Your task to perform on an android device: toggle sleep mode Image 0: 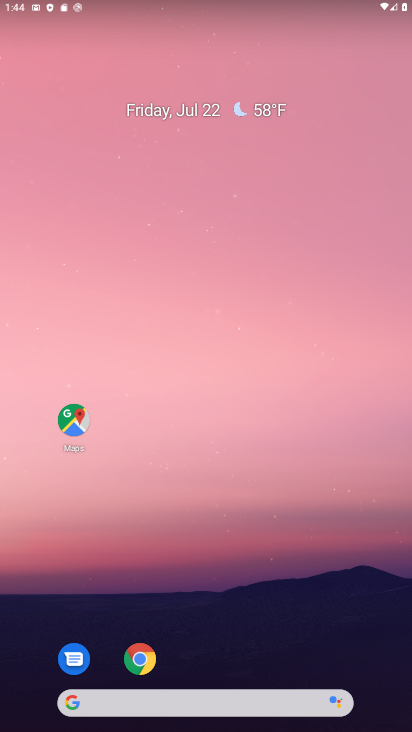
Step 0: drag from (215, 670) to (230, 3)
Your task to perform on an android device: toggle sleep mode Image 1: 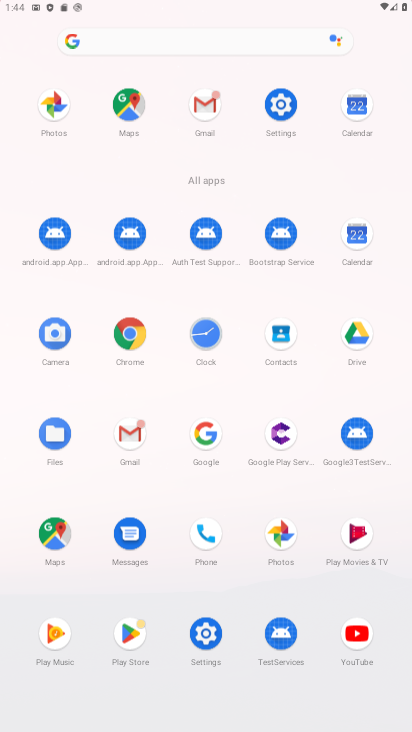
Step 1: click (286, 111)
Your task to perform on an android device: toggle sleep mode Image 2: 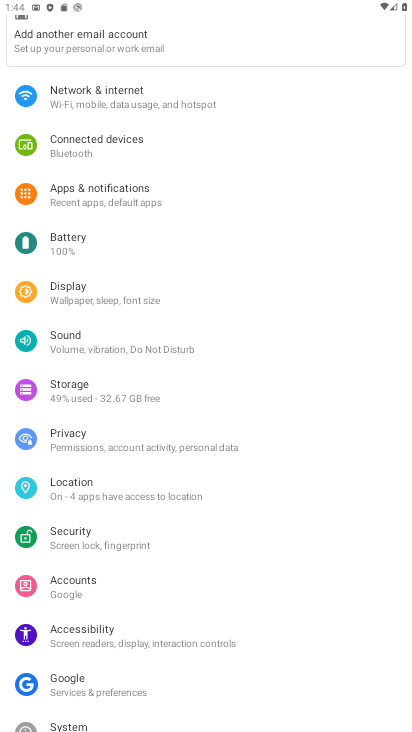
Step 2: click (182, 258)
Your task to perform on an android device: toggle sleep mode Image 3: 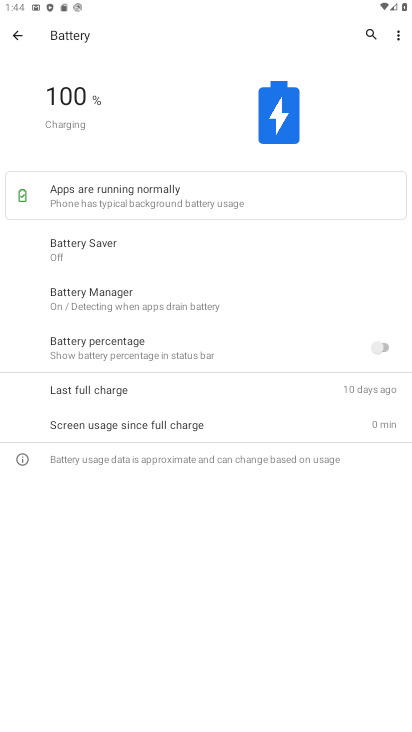
Step 3: task complete